Your task to perform on an android device: open app "Grab" (install if not already installed) Image 0: 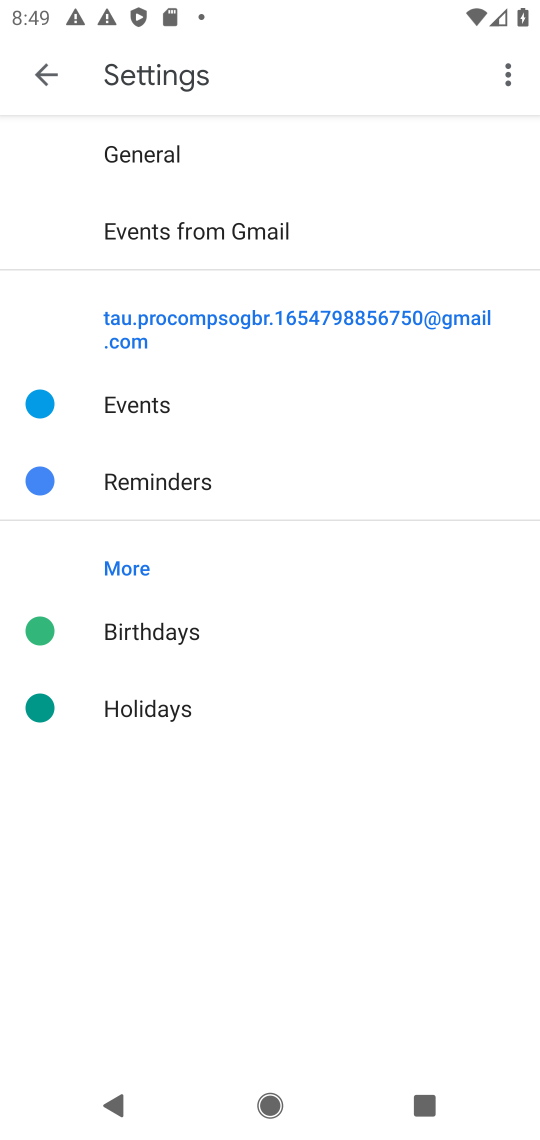
Step 0: press home button
Your task to perform on an android device: open app "Grab" (install if not already installed) Image 1: 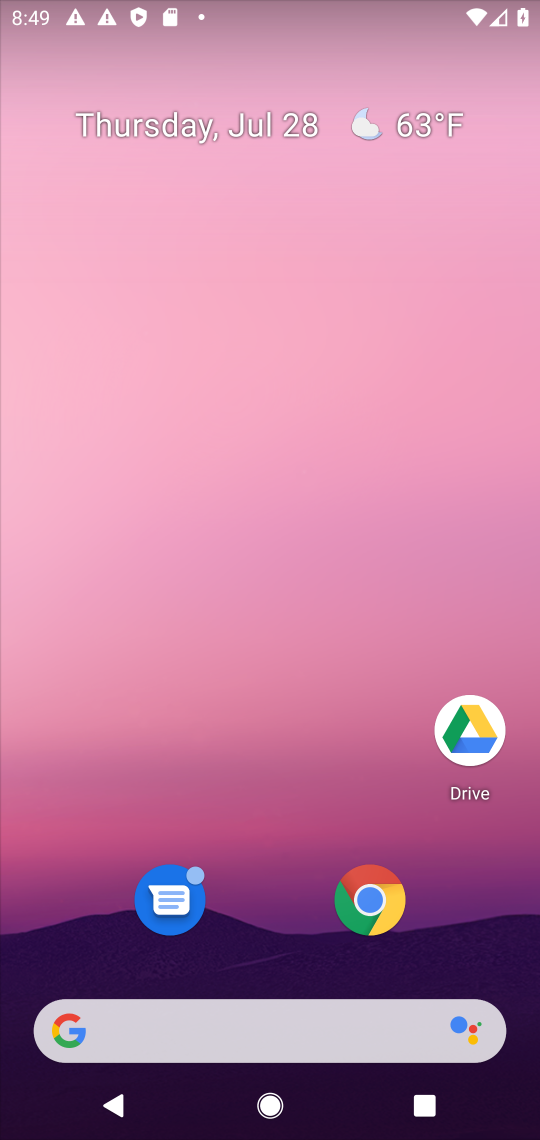
Step 1: drag from (301, 769) to (299, 472)
Your task to perform on an android device: open app "Grab" (install if not already installed) Image 2: 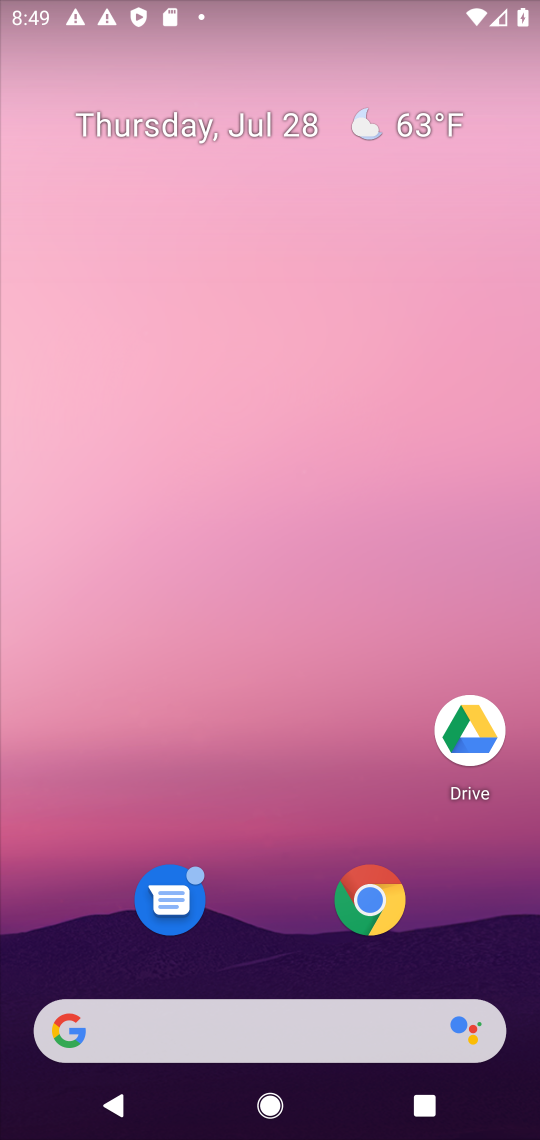
Step 2: drag from (327, 800) to (315, 271)
Your task to perform on an android device: open app "Grab" (install if not already installed) Image 3: 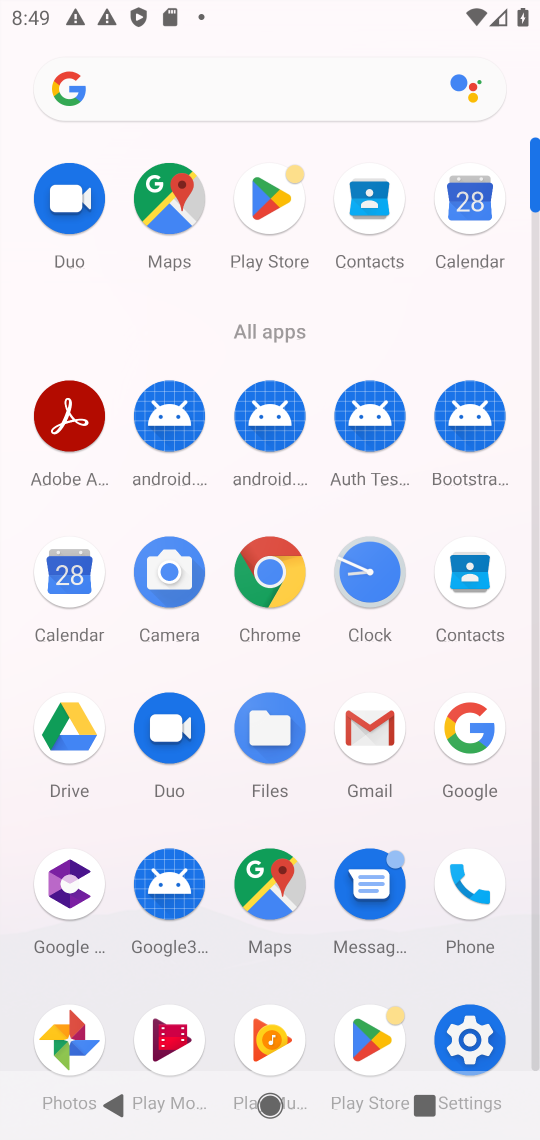
Step 3: click (364, 1038)
Your task to perform on an android device: open app "Grab" (install if not already installed) Image 4: 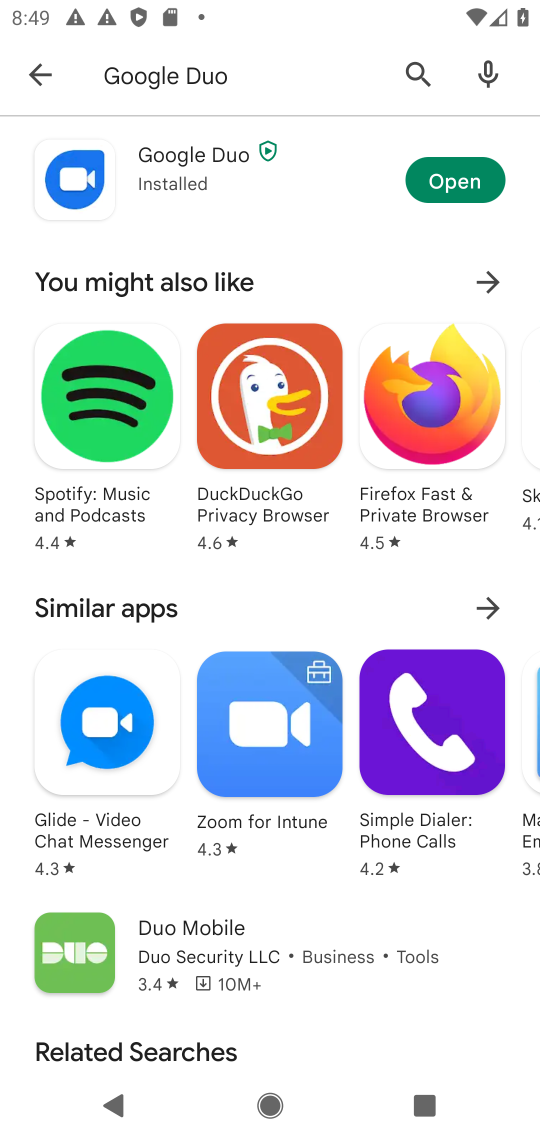
Step 4: click (413, 76)
Your task to perform on an android device: open app "Grab" (install if not already installed) Image 5: 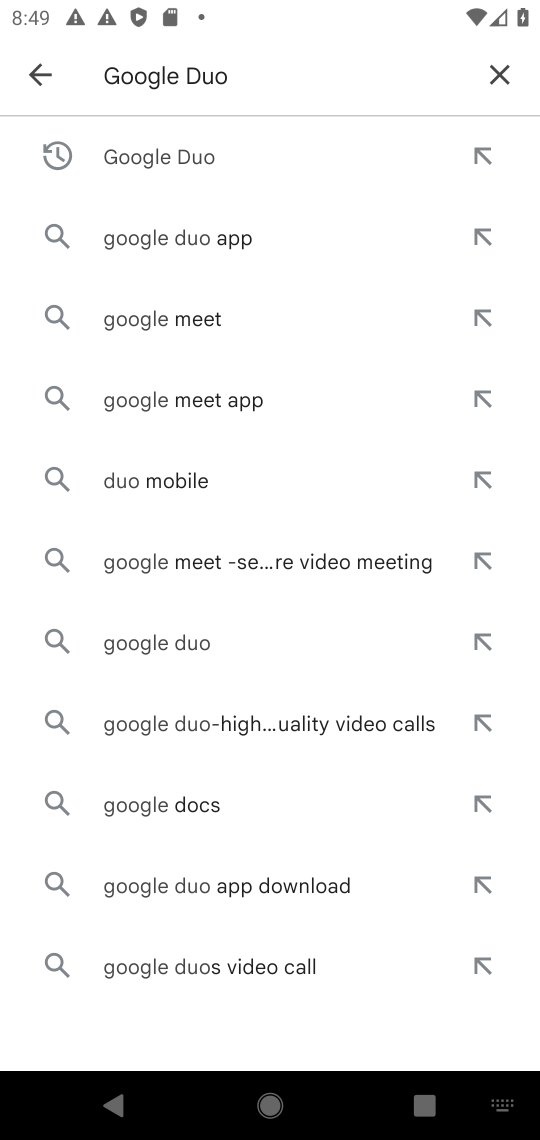
Step 5: click (500, 71)
Your task to perform on an android device: open app "Grab" (install if not already installed) Image 6: 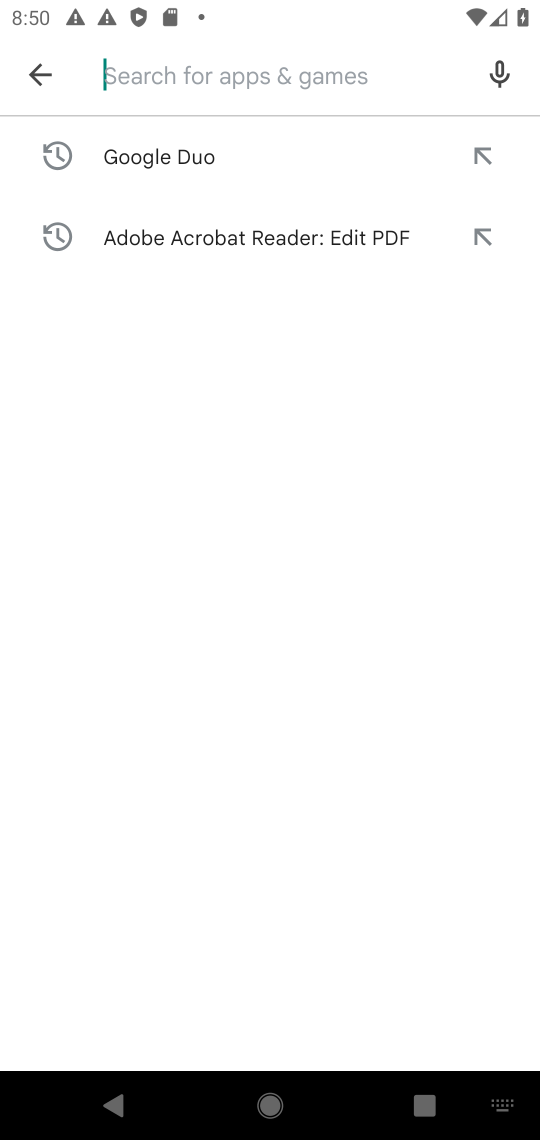
Step 6: type "Grab"
Your task to perform on an android device: open app "Grab" (install if not already installed) Image 7: 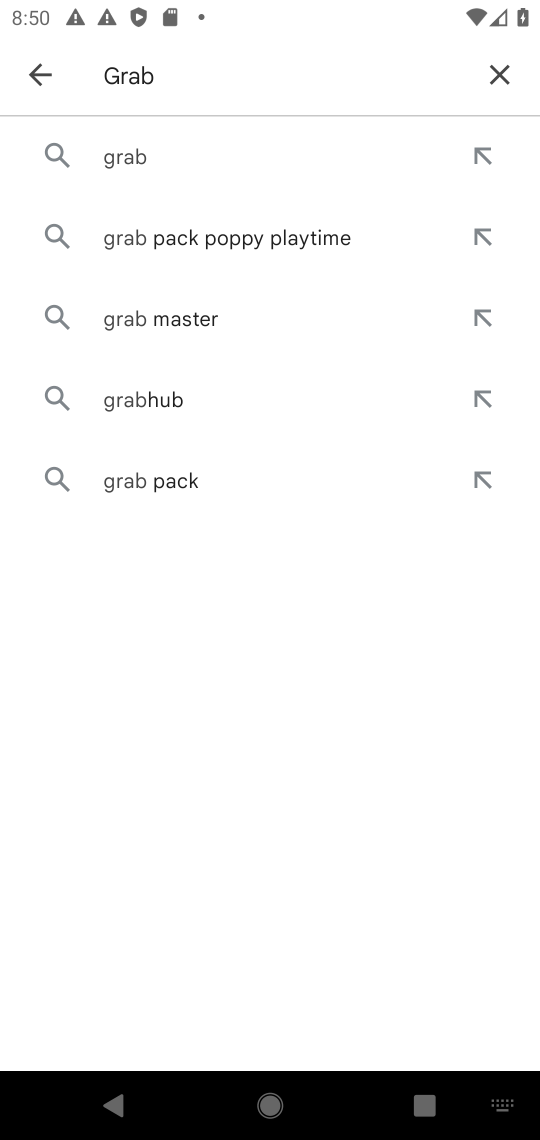
Step 7: press enter
Your task to perform on an android device: open app "Grab" (install if not already installed) Image 8: 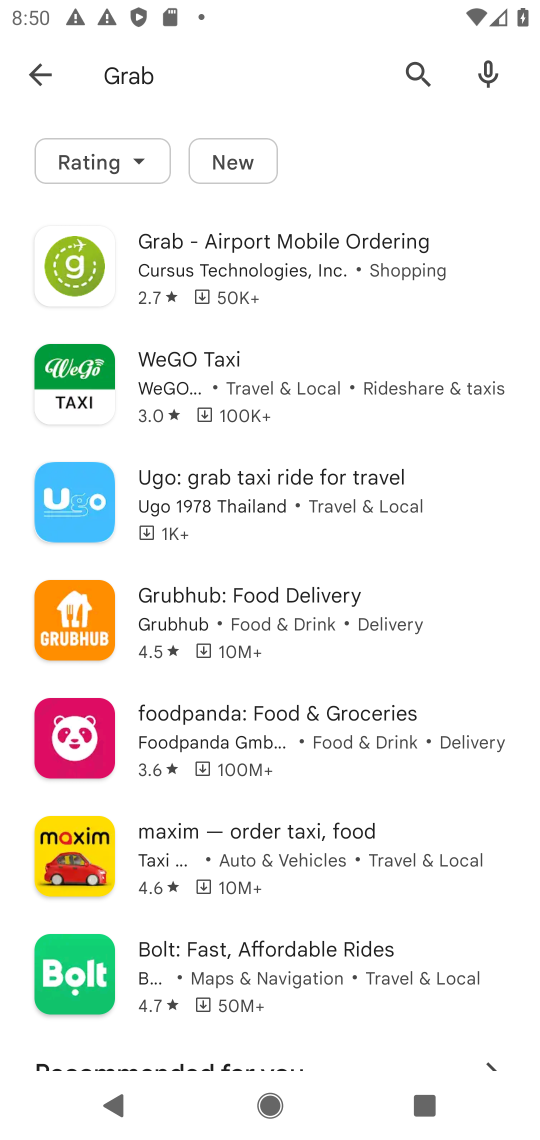
Step 8: click (210, 262)
Your task to perform on an android device: open app "Grab" (install if not already installed) Image 9: 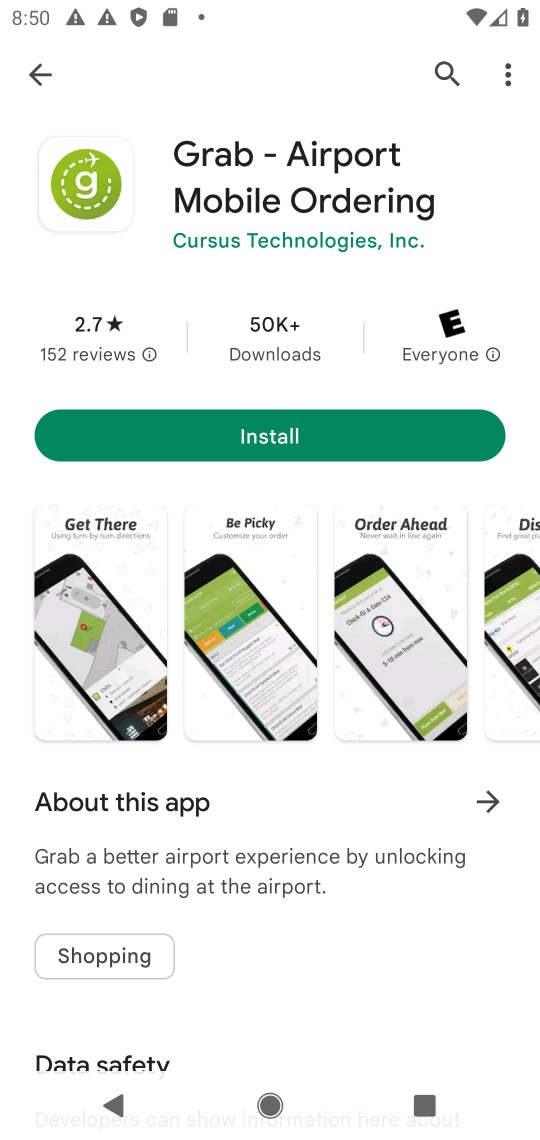
Step 9: click (266, 429)
Your task to perform on an android device: open app "Grab" (install if not already installed) Image 10: 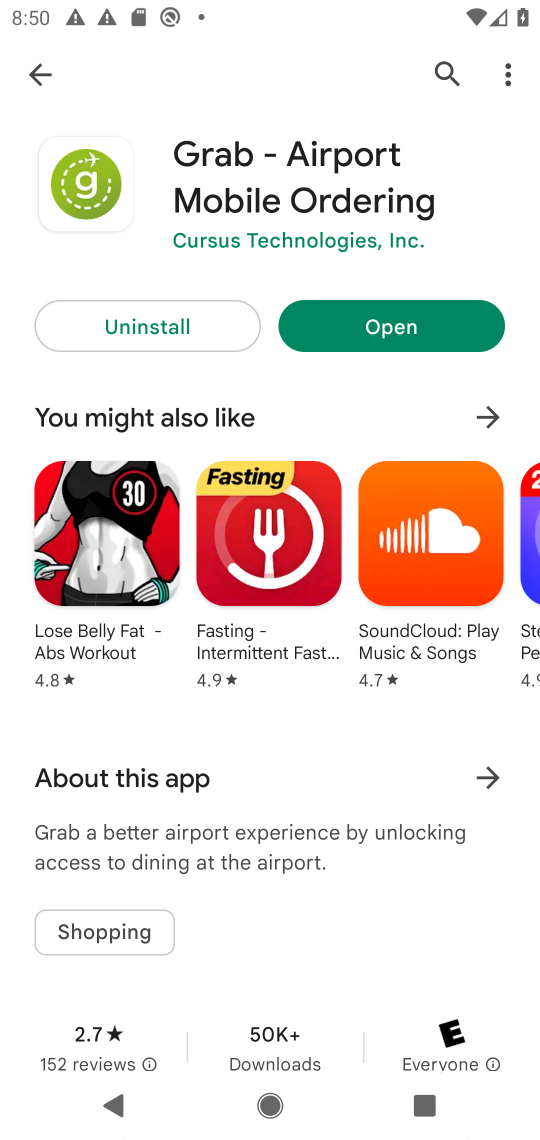
Step 10: task complete